Your task to perform on an android device: Open battery settings Image 0: 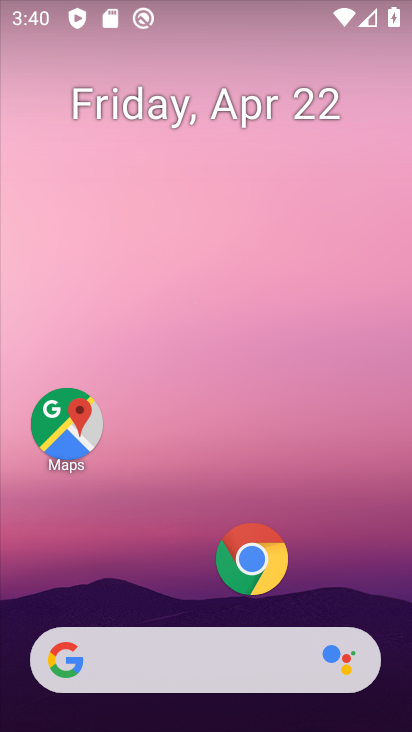
Step 0: drag from (162, 540) to (272, 42)
Your task to perform on an android device: Open battery settings Image 1: 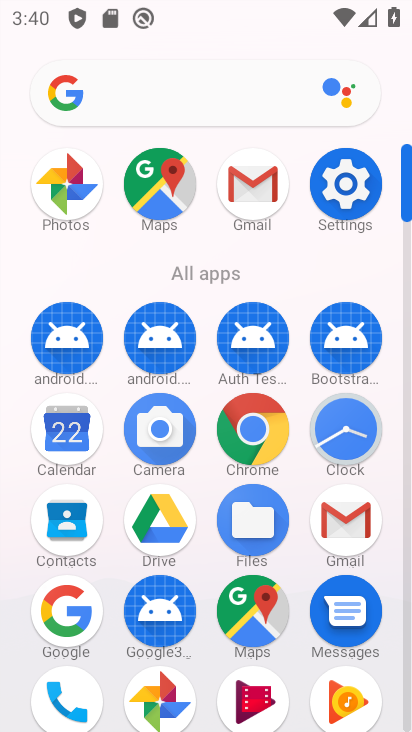
Step 1: click (345, 205)
Your task to perform on an android device: Open battery settings Image 2: 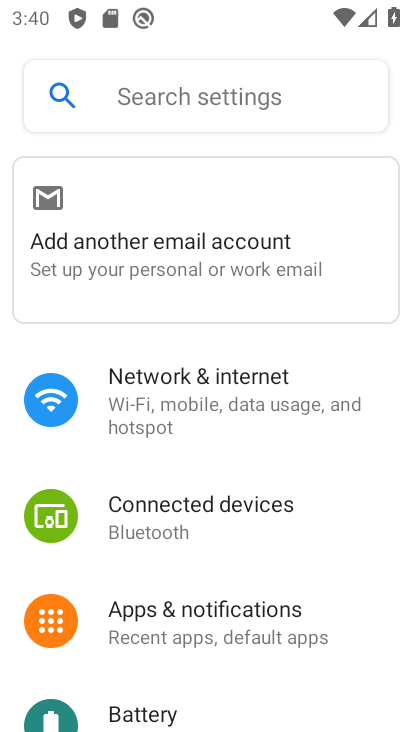
Step 2: click (140, 712)
Your task to perform on an android device: Open battery settings Image 3: 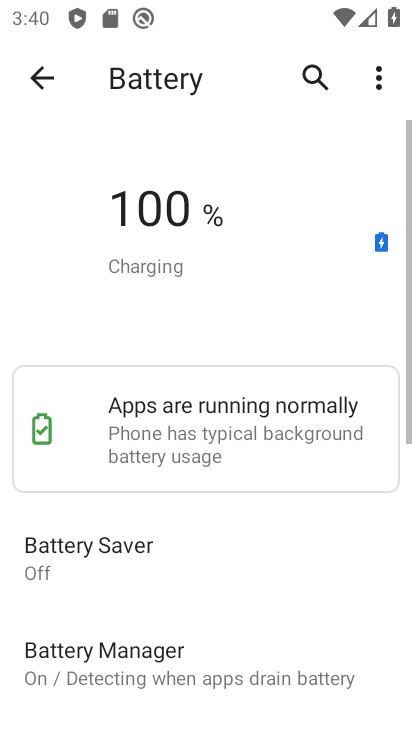
Step 3: task complete